Your task to perform on an android device: open sync settings in chrome Image 0: 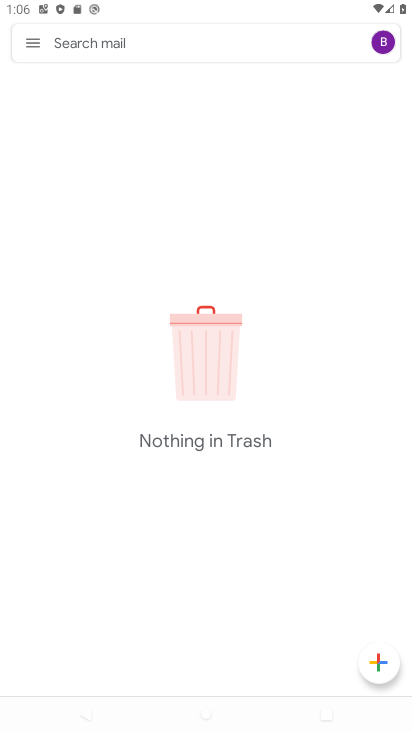
Step 0: press home button
Your task to perform on an android device: open sync settings in chrome Image 1: 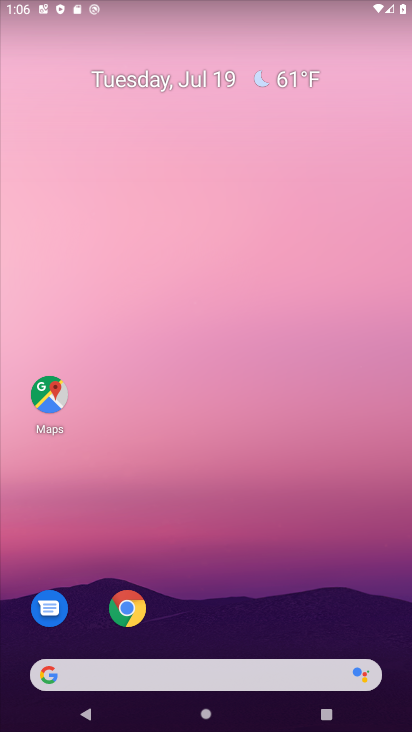
Step 1: drag from (283, 315) to (295, 0)
Your task to perform on an android device: open sync settings in chrome Image 2: 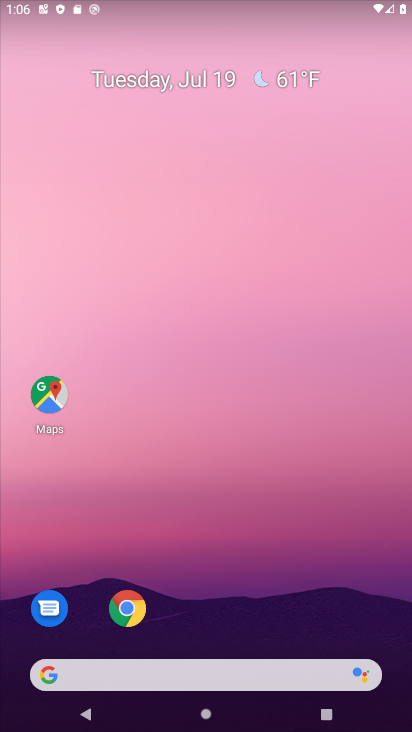
Step 2: drag from (312, 670) to (276, 3)
Your task to perform on an android device: open sync settings in chrome Image 3: 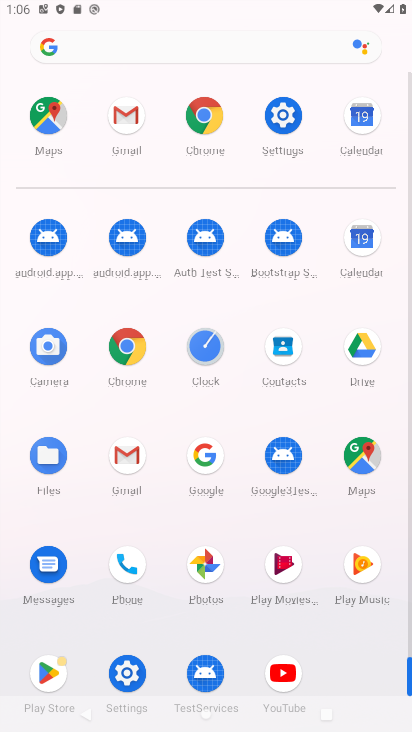
Step 3: click (197, 121)
Your task to perform on an android device: open sync settings in chrome Image 4: 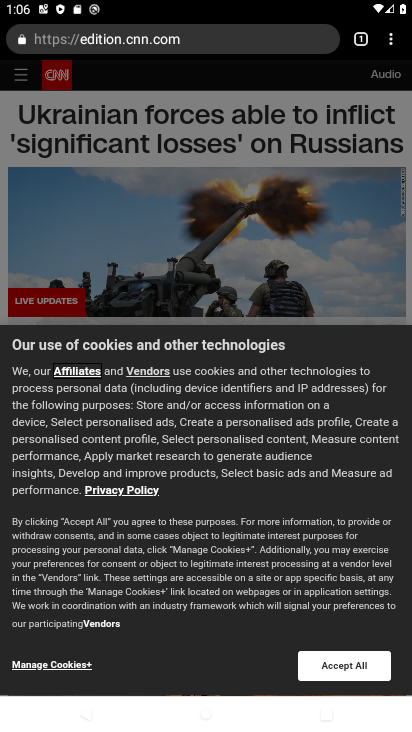
Step 4: drag from (392, 48) to (287, 430)
Your task to perform on an android device: open sync settings in chrome Image 5: 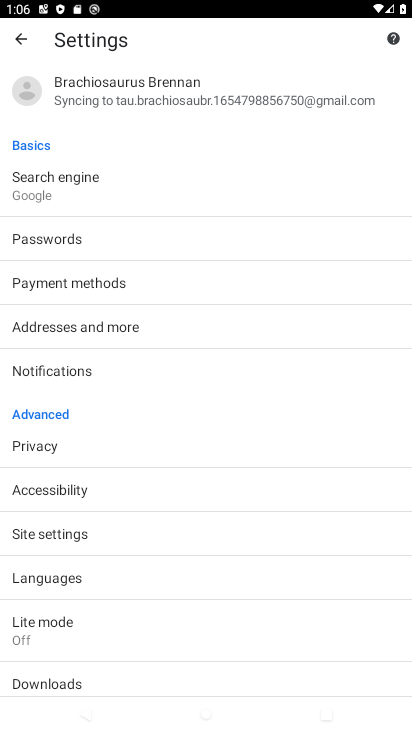
Step 5: click (45, 534)
Your task to perform on an android device: open sync settings in chrome Image 6: 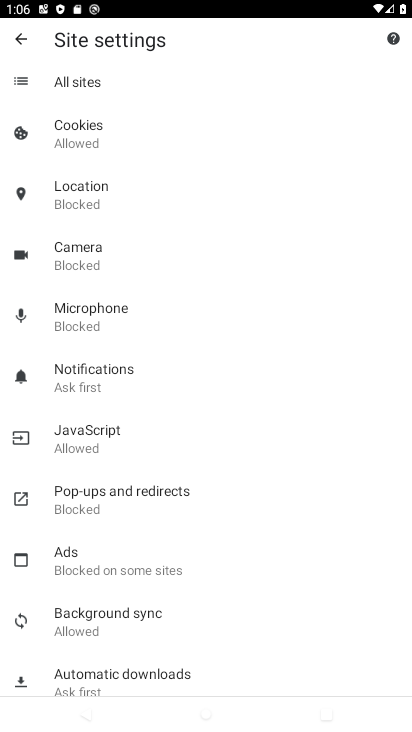
Step 6: click (97, 617)
Your task to perform on an android device: open sync settings in chrome Image 7: 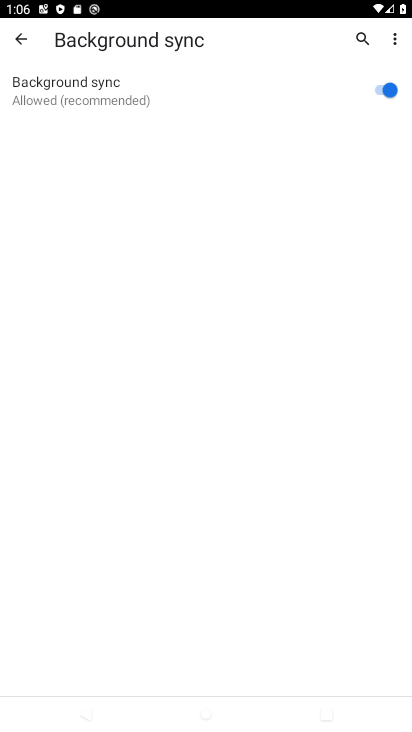
Step 7: task complete